Your task to perform on an android device: Search for "razer blade" on costco.com, select the first entry, add it to the cart, then select checkout. Image 0: 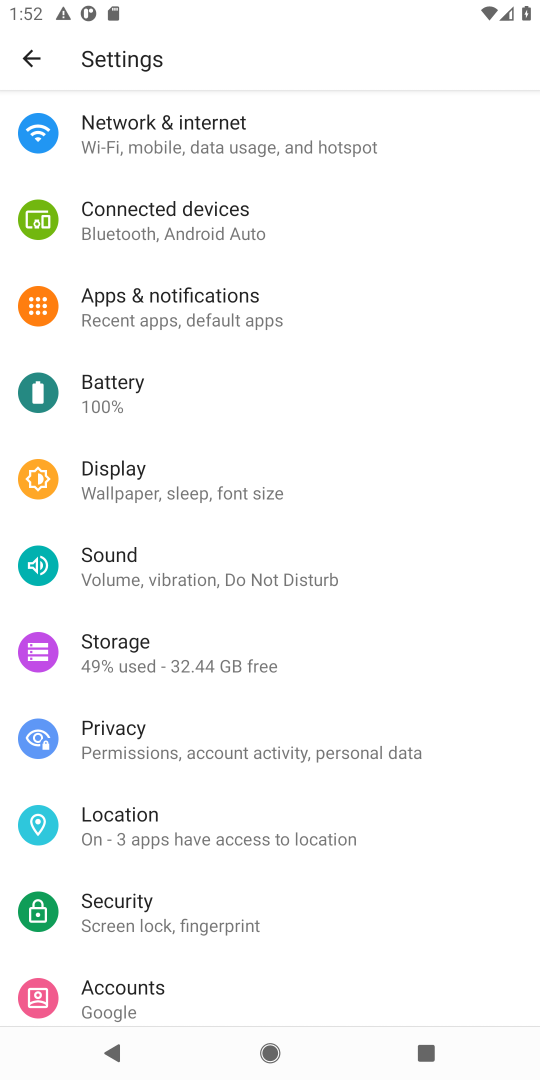
Step 0: press home button
Your task to perform on an android device: Search for "razer blade" on costco.com, select the first entry, add it to the cart, then select checkout. Image 1: 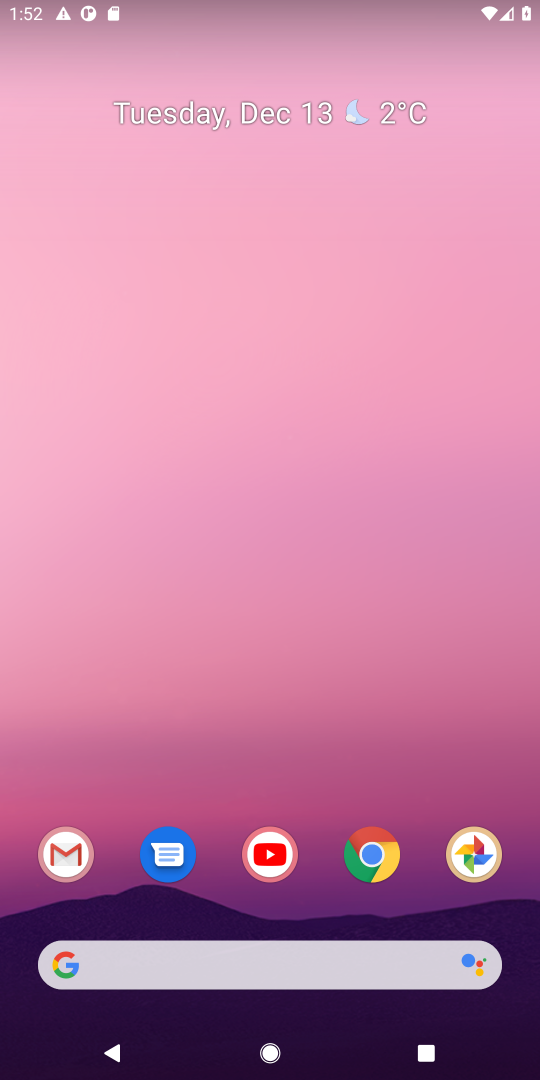
Step 1: click (366, 867)
Your task to perform on an android device: Search for "razer blade" on costco.com, select the first entry, add it to the cart, then select checkout. Image 2: 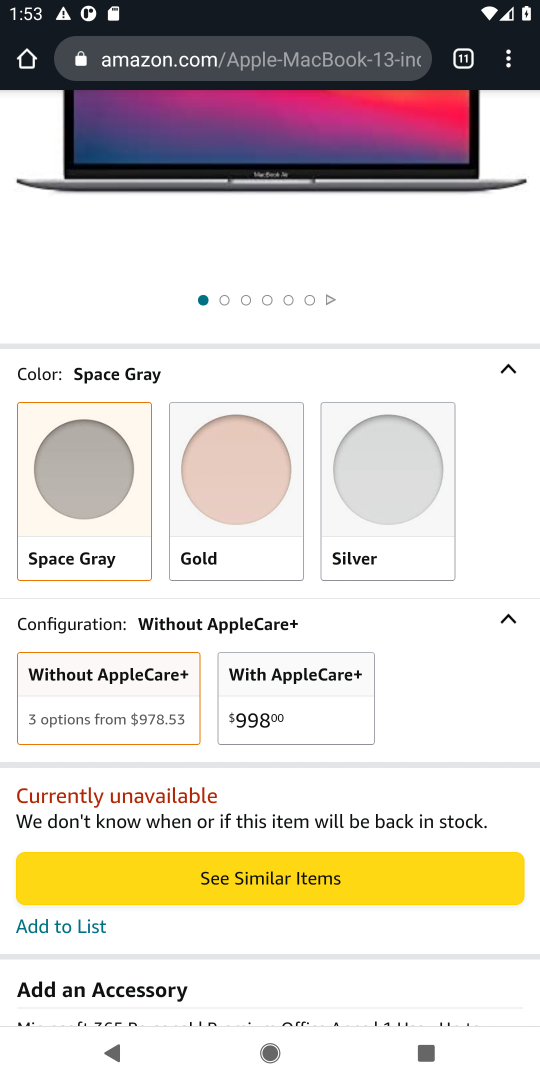
Step 2: click (339, 56)
Your task to perform on an android device: Search for "razer blade" on costco.com, select the first entry, add it to the cart, then select checkout. Image 3: 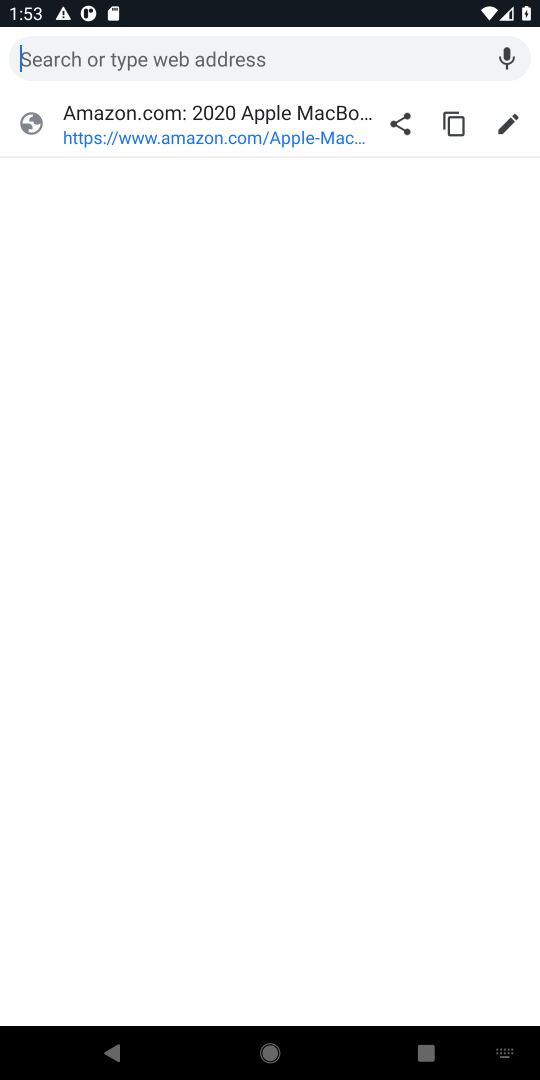
Step 3: type "costco"
Your task to perform on an android device: Search for "razer blade" on costco.com, select the first entry, add it to the cart, then select checkout. Image 4: 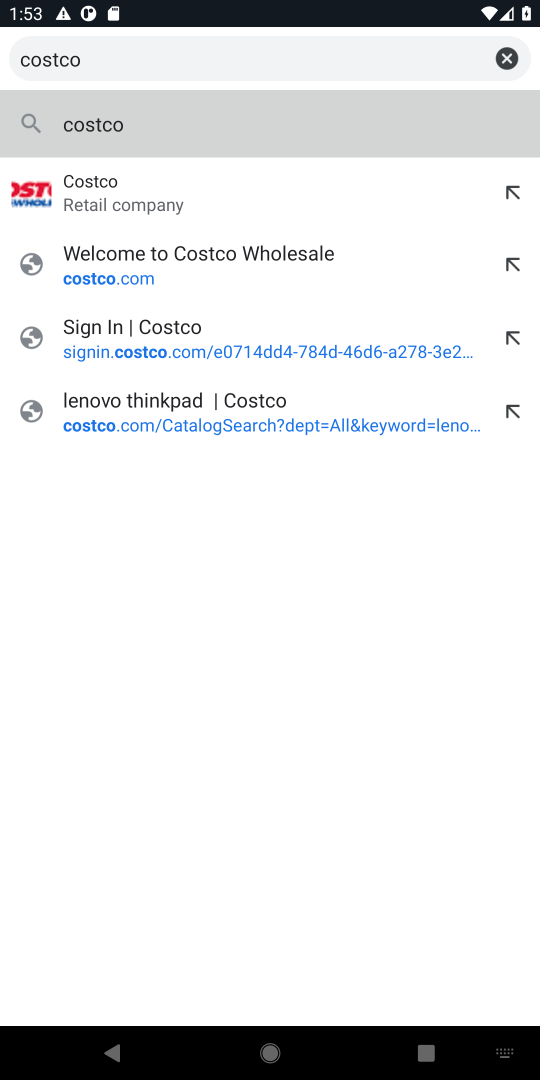
Step 4: click (129, 194)
Your task to perform on an android device: Search for "razer blade" on costco.com, select the first entry, add it to the cart, then select checkout. Image 5: 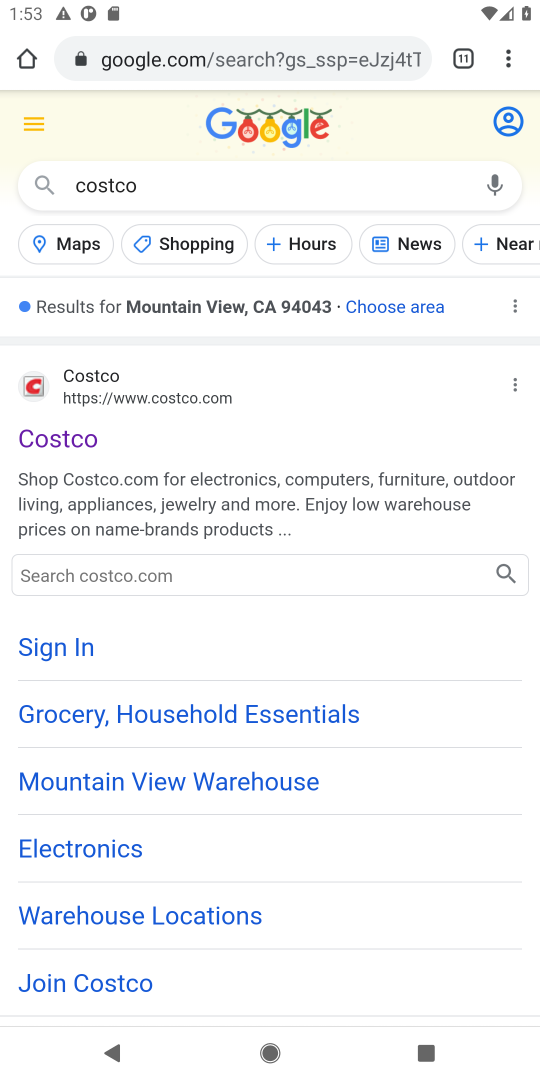
Step 5: click (60, 393)
Your task to perform on an android device: Search for "razer blade" on costco.com, select the first entry, add it to the cart, then select checkout. Image 6: 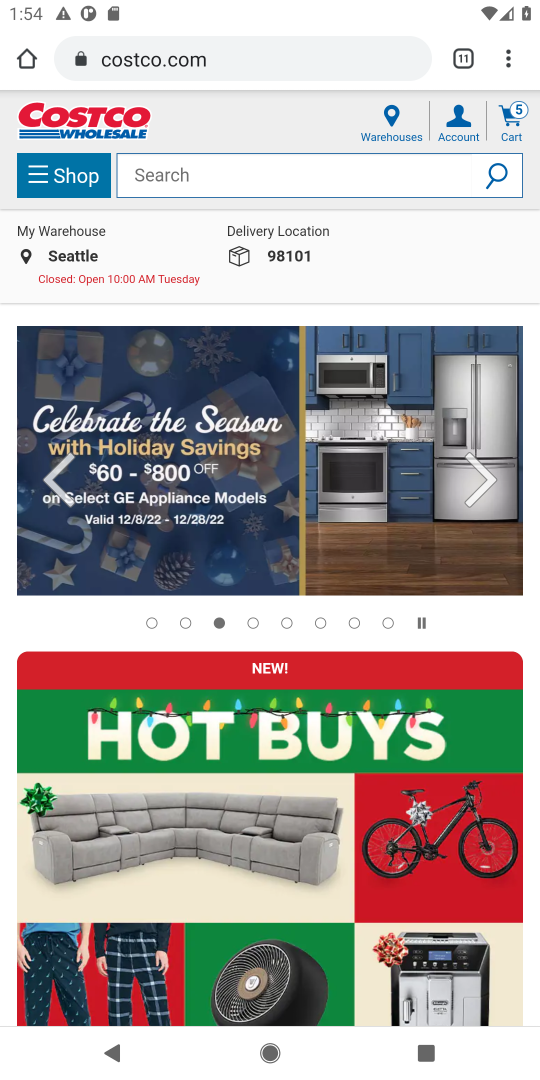
Step 6: type "razer blade"
Your task to perform on an android device: Search for "razer blade" on costco.com, select the first entry, add it to the cart, then select checkout. Image 7: 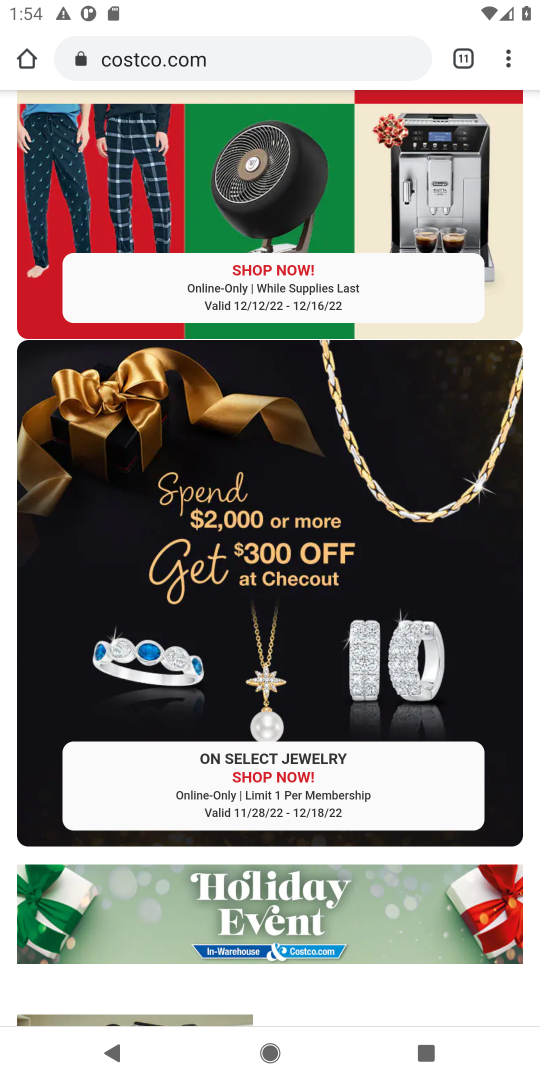
Step 7: task complete